Your task to perform on an android device: Go to accessibility settings Image 0: 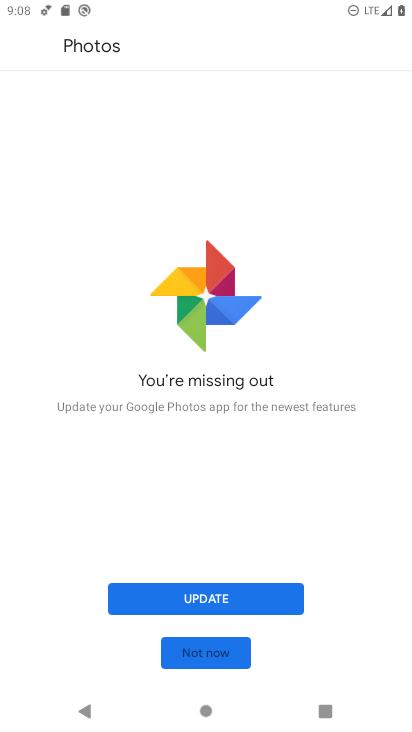
Step 0: press home button
Your task to perform on an android device: Go to accessibility settings Image 1: 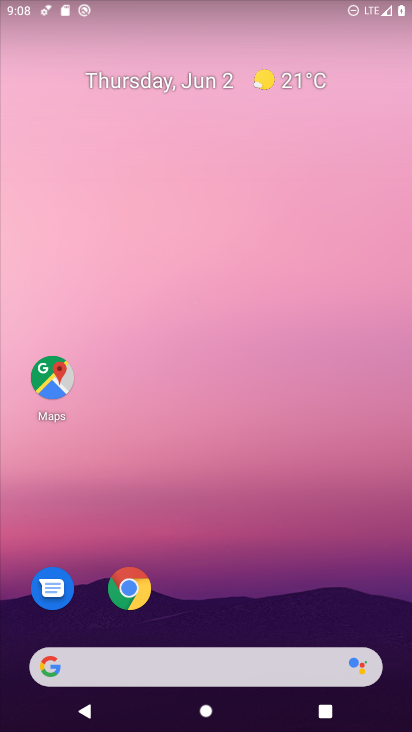
Step 1: drag from (207, 590) to (317, 4)
Your task to perform on an android device: Go to accessibility settings Image 2: 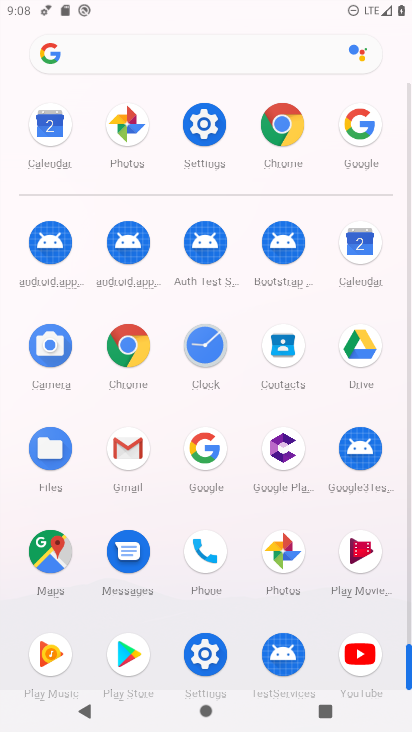
Step 2: click (201, 120)
Your task to perform on an android device: Go to accessibility settings Image 3: 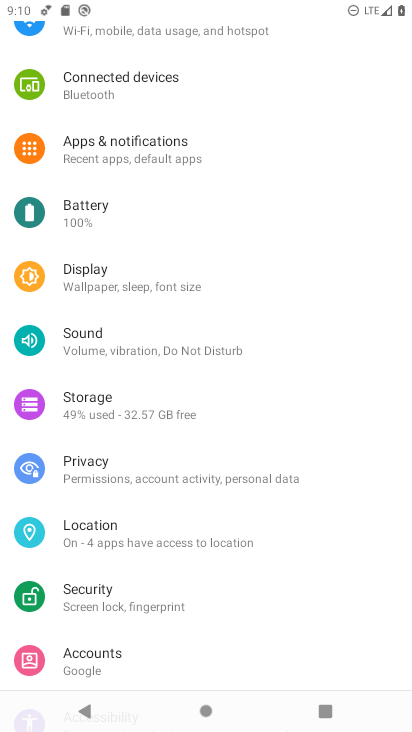
Step 3: drag from (228, 459) to (237, 96)
Your task to perform on an android device: Go to accessibility settings Image 4: 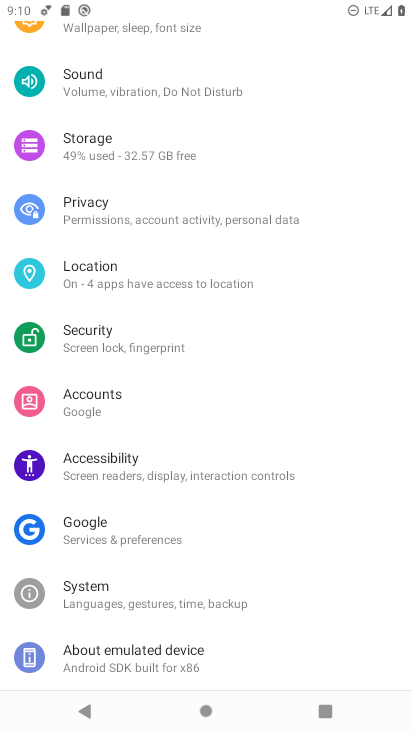
Step 4: click (133, 460)
Your task to perform on an android device: Go to accessibility settings Image 5: 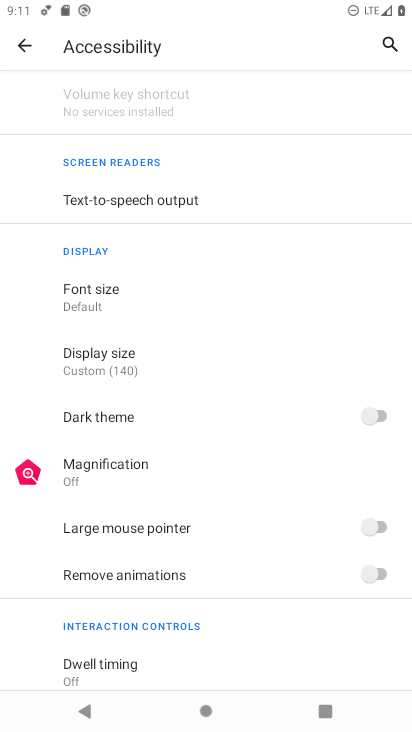
Step 5: task complete